Your task to perform on an android device: Open Android settings Image 0: 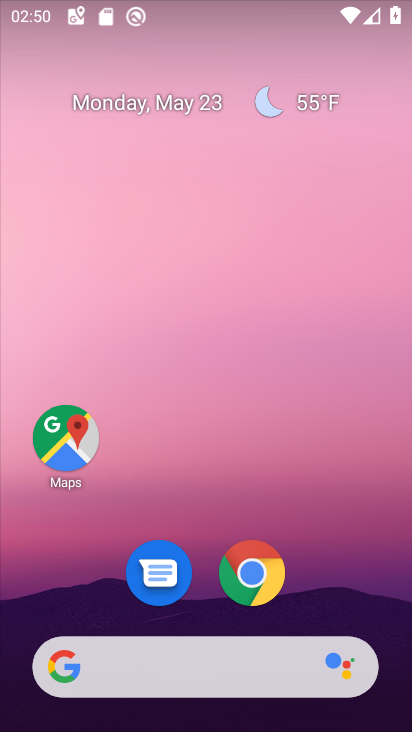
Step 0: drag from (302, 556) to (229, 114)
Your task to perform on an android device: Open Android settings Image 1: 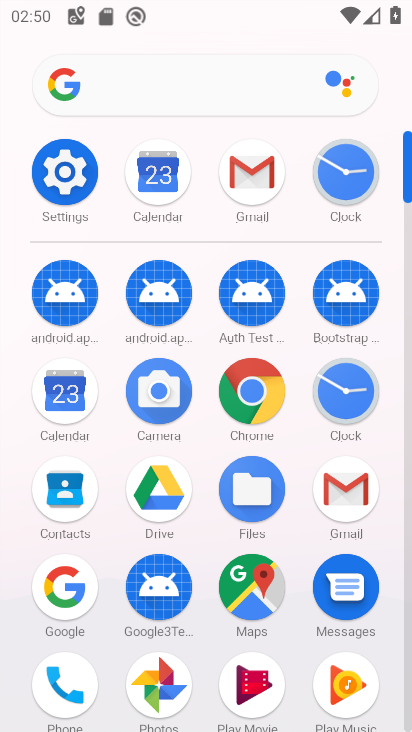
Step 1: click (67, 163)
Your task to perform on an android device: Open Android settings Image 2: 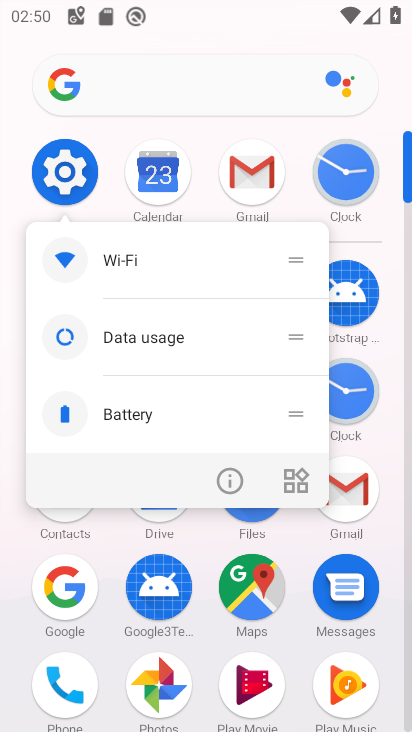
Step 2: click (64, 173)
Your task to perform on an android device: Open Android settings Image 3: 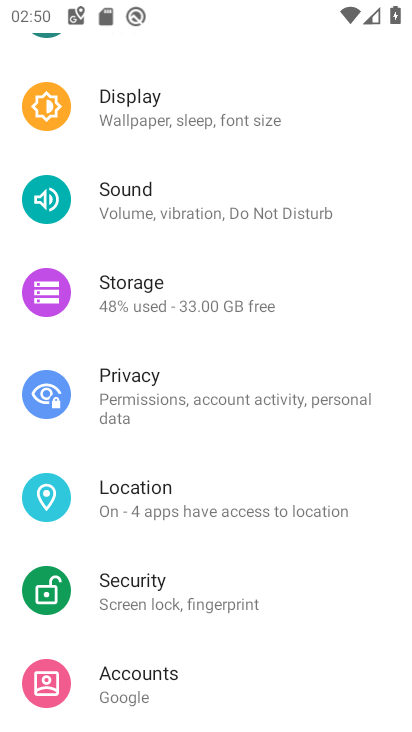
Step 3: task complete